Your task to perform on an android device: open the mobile data screen to see how much data has been used Image 0: 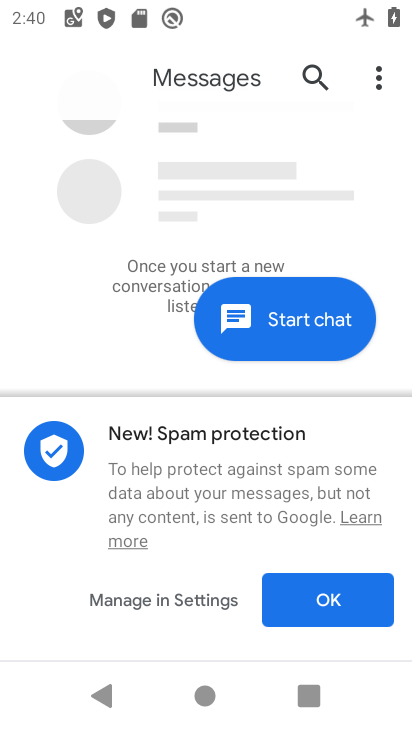
Step 0: press home button
Your task to perform on an android device: open the mobile data screen to see how much data has been used Image 1: 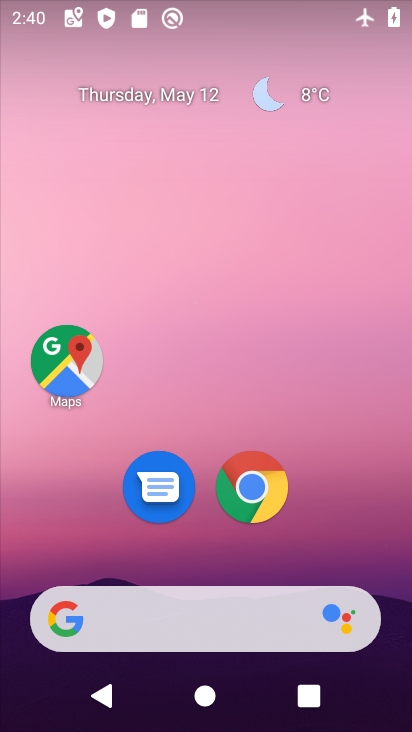
Step 1: drag from (341, 434) to (287, 56)
Your task to perform on an android device: open the mobile data screen to see how much data has been used Image 2: 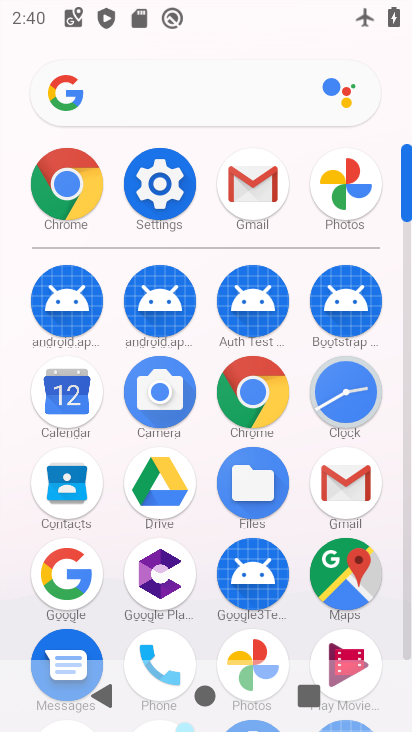
Step 2: click (173, 180)
Your task to perform on an android device: open the mobile data screen to see how much data has been used Image 3: 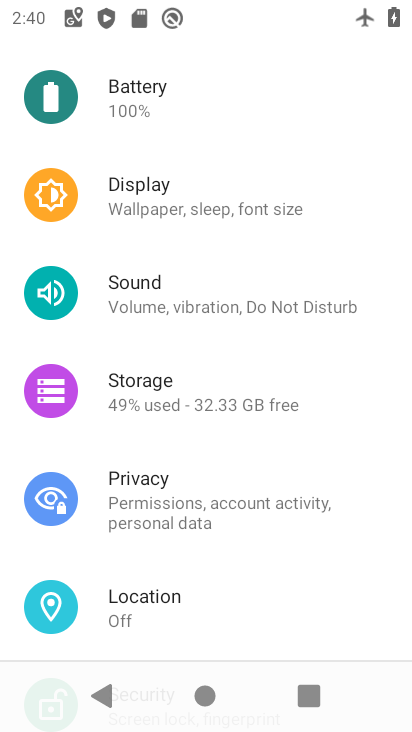
Step 3: drag from (198, 149) to (227, 731)
Your task to perform on an android device: open the mobile data screen to see how much data has been used Image 4: 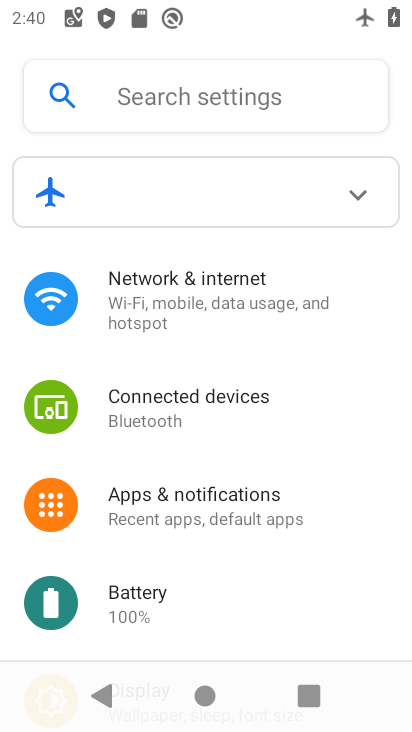
Step 4: click (213, 284)
Your task to perform on an android device: open the mobile data screen to see how much data has been used Image 5: 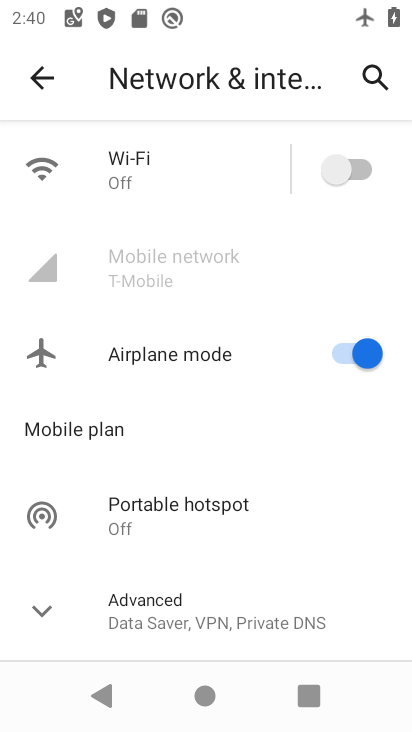
Step 5: click (179, 259)
Your task to perform on an android device: open the mobile data screen to see how much data has been used Image 6: 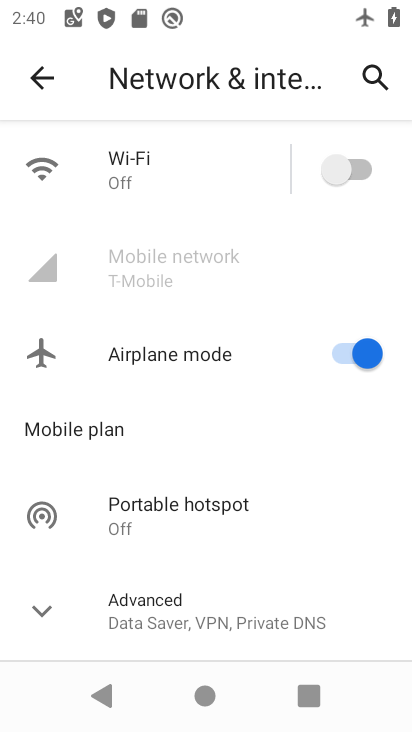
Step 6: drag from (193, 574) to (254, 177)
Your task to perform on an android device: open the mobile data screen to see how much data has been used Image 7: 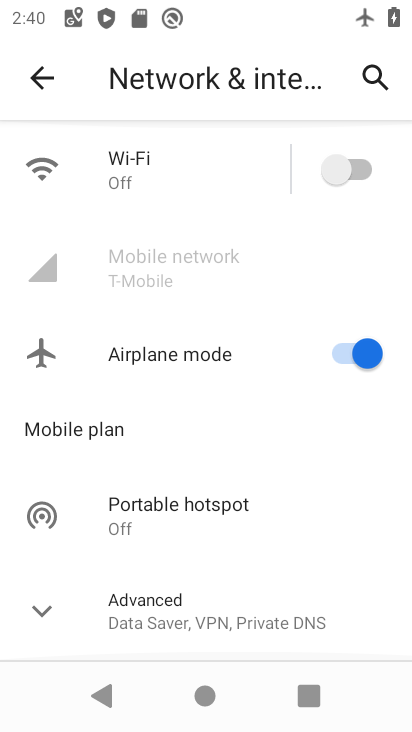
Step 7: click (186, 164)
Your task to perform on an android device: open the mobile data screen to see how much data has been used Image 8: 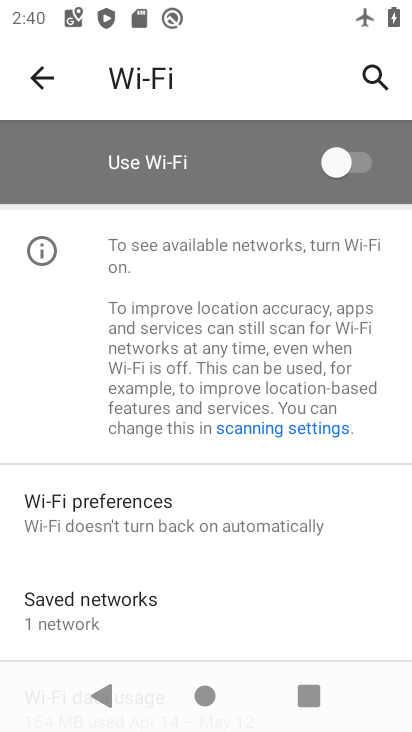
Step 8: click (45, 73)
Your task to perform on an android device: open the mobile data screen to see how much data has been used Image 9: 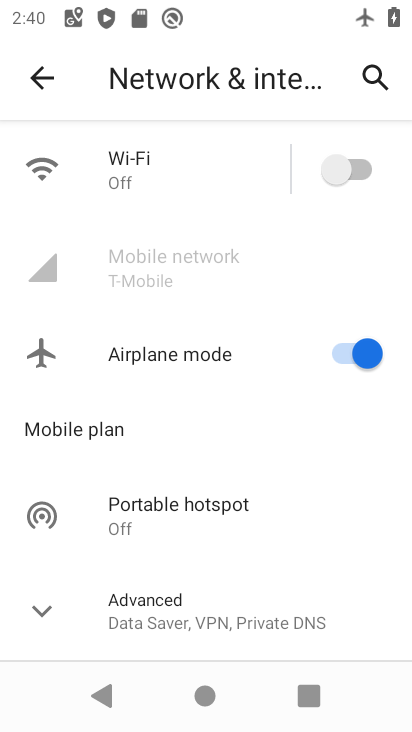
Step 9: click (342, 348)
Your task to perform on an android device: open the mobile data screen to see how much data has been used Image 10: 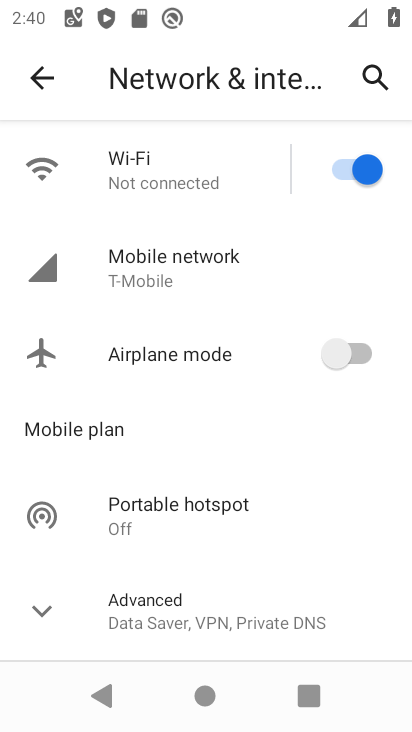
Step 10: click (238, 260)
Your task to perform on an android device: open the mobile data screen to see how much data has been used Image 11: 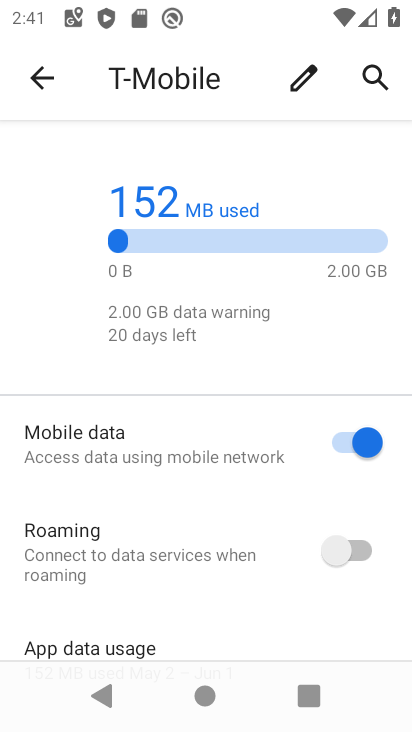
Step 11: task complete